Your task to perform on an android device: Go to Google Image 0: 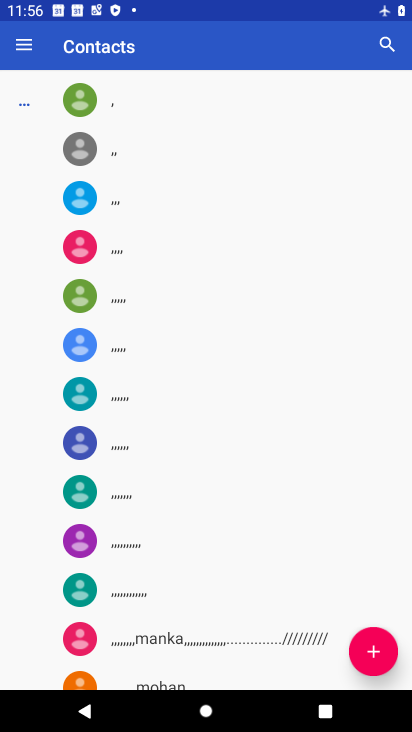
Step 0: press back button
Your task to perform on an android device: Go to Google Image 1: 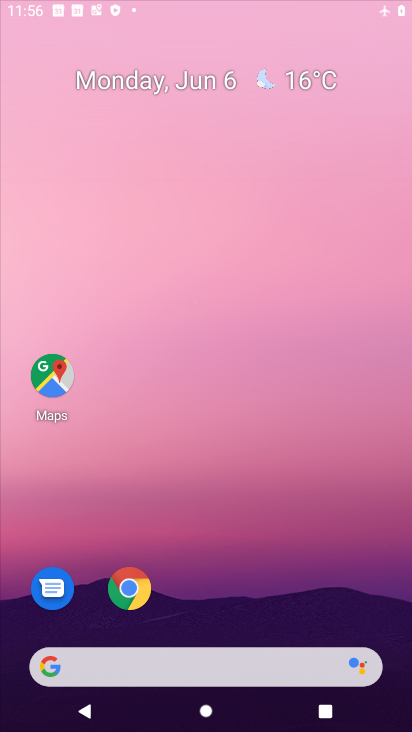
Step 1: press home button
Your task to perform on an android device: Go to Google Image 2: 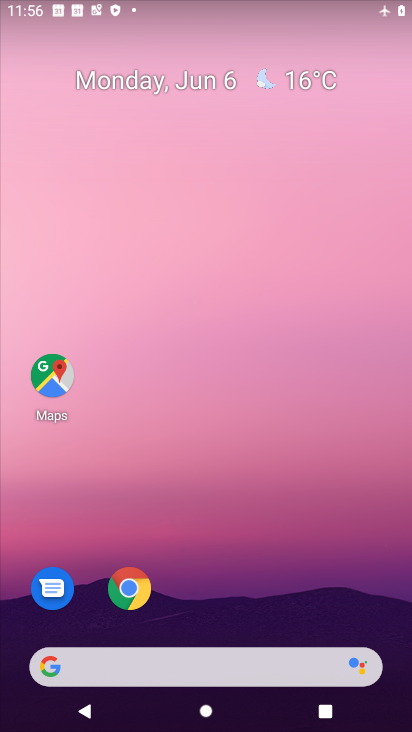
Step 2: click (142, 647)
Your task to perform on an android device: Go to Google Image 3: 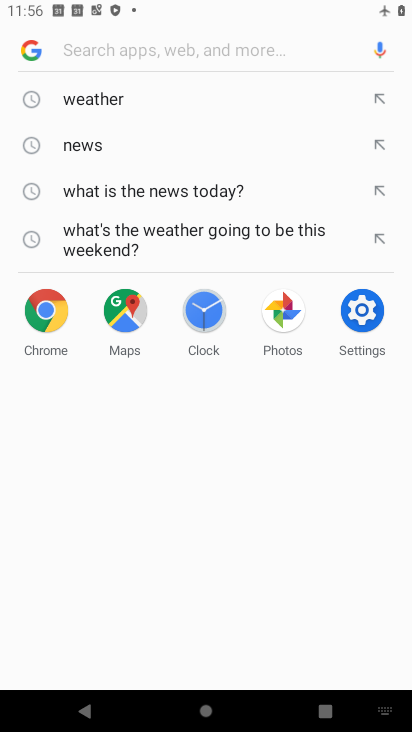
Step 3: task complete